Your task to perform on an android device: Go to display settings Image 0: 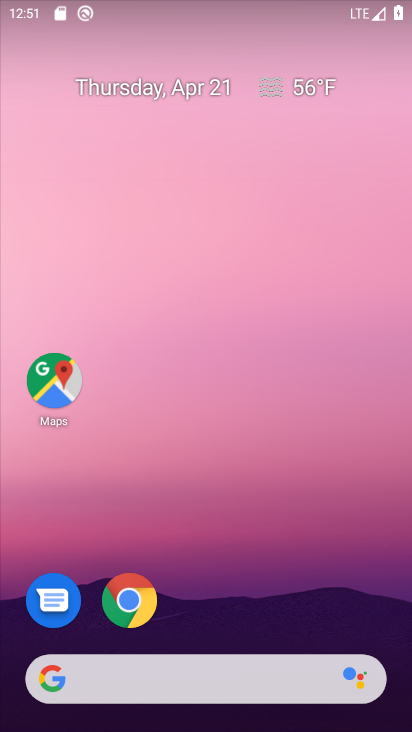
Step 0: drag from (254, 583) to (252, 127)
Your task to perform on an android device: Go to display settings Image 1: 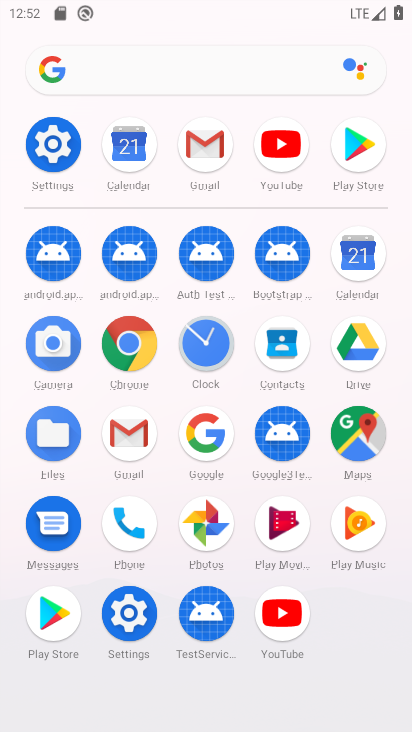
Step 1: click (66, 142)
Your task to perform on an android device: Go to display settings Image 2: 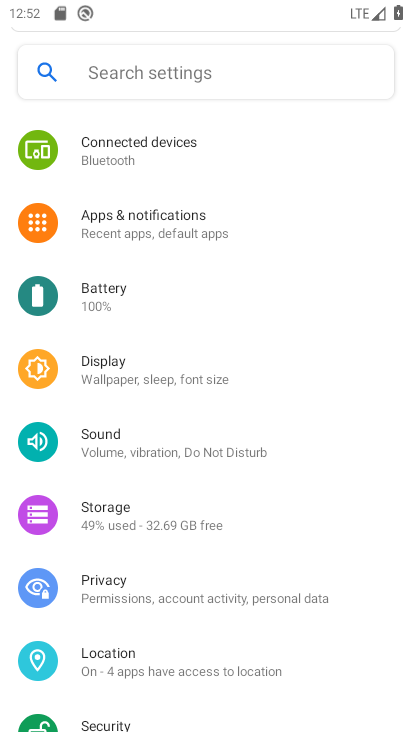
Step 2: click (182, 367)
Your task to perform on an android device: Go to display settings Image 3: 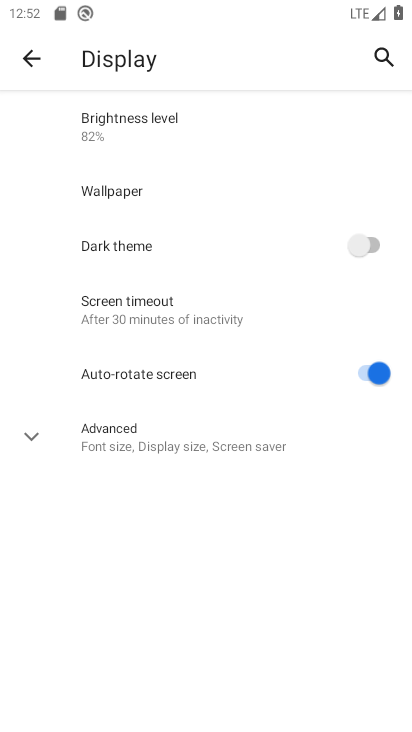
Step 3: task complete